Your task to perform on an android device: Search for a 3d printer on aliexpress Image 0: 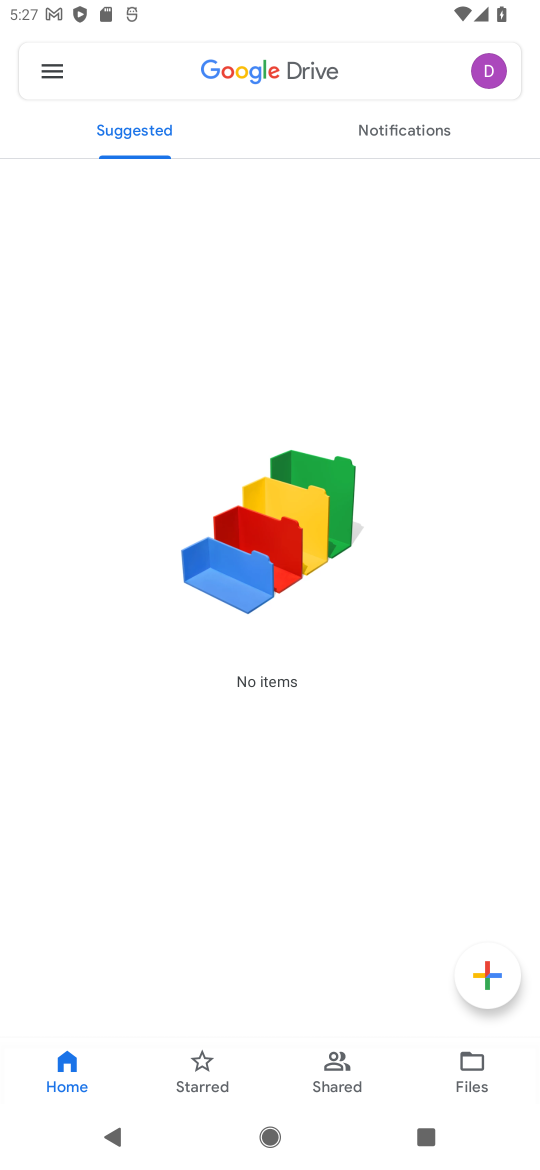
Step 0: press home button
Your task to perform on an android device: Search for a 3d printer on aliexpress Image 1: 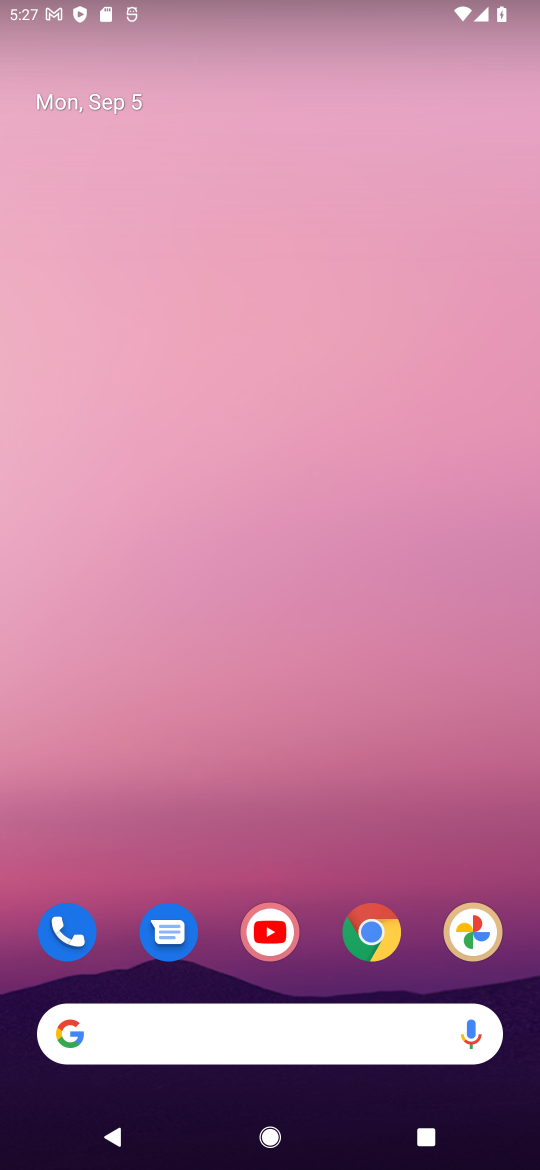
Step 1: drag from (311, 1003) to (375, 6)
Your task to perform on an android device: Search for a 3d printer on aliexpress Image 2: 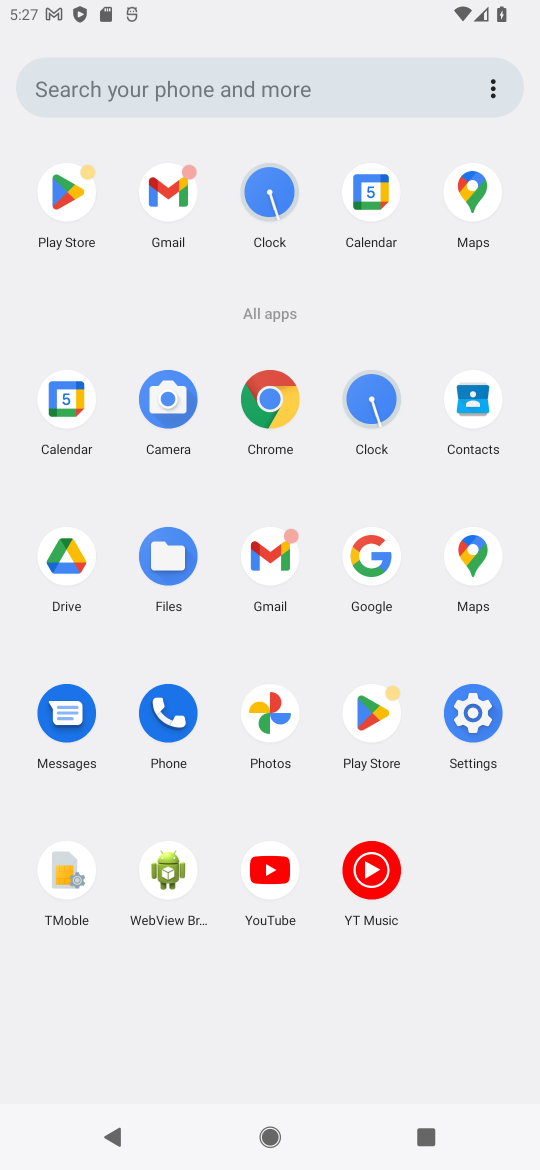
Step 2: click (375, 560)
Your task to perform on an android device: Search for a 3d printer on aliexpress Image 3: 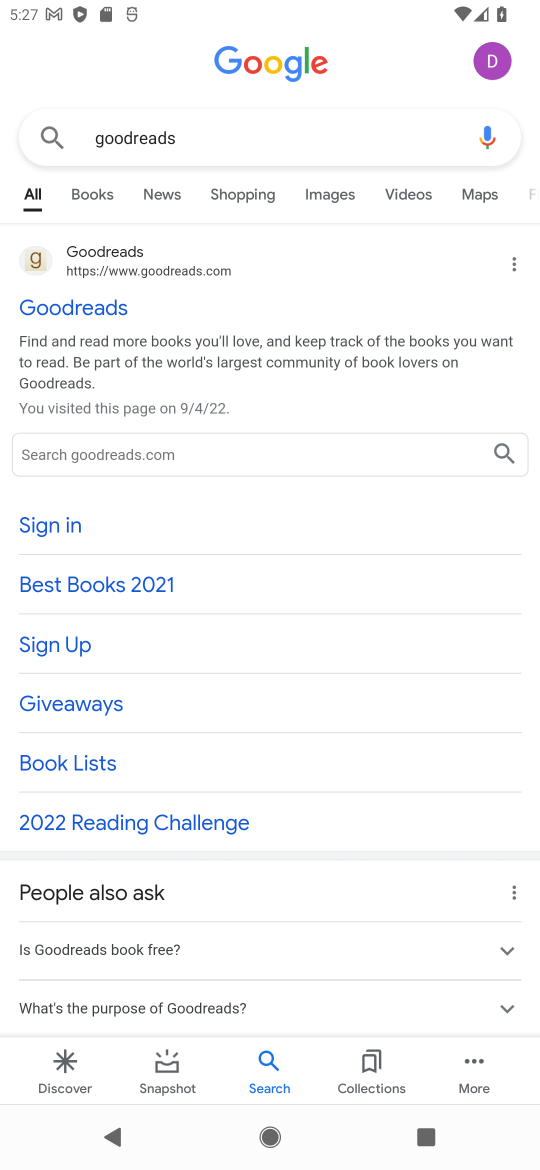
Step 3: click (271, 146)
Your task to perform on an android device: Search for a 3d printer on aliexpress Image 4: 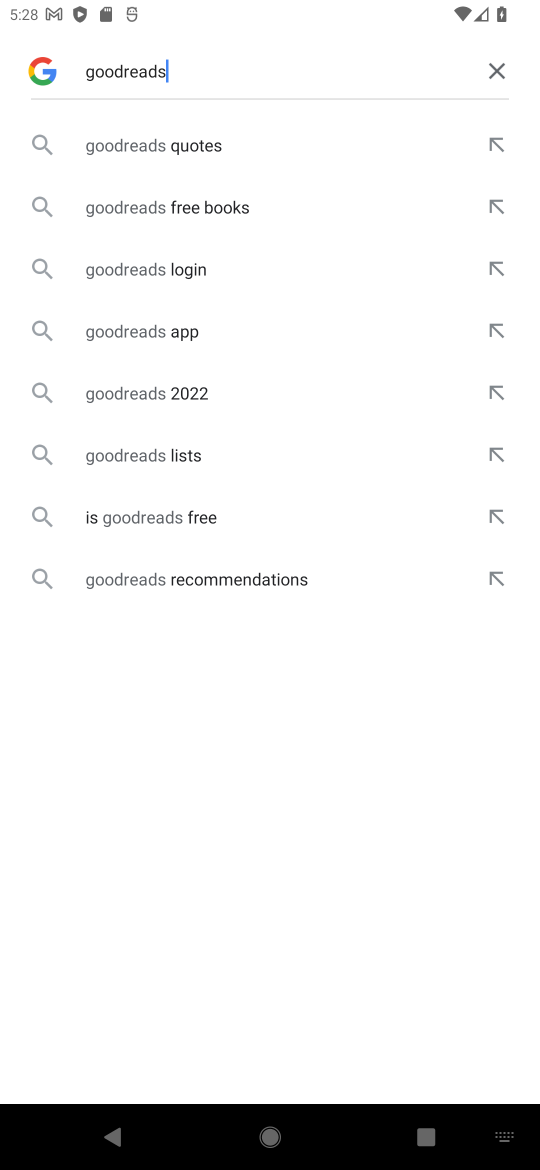
Step 4: click (491, 59)
Your task to perform on an android device: Search for a 3d printer on aliexpress Image 5: 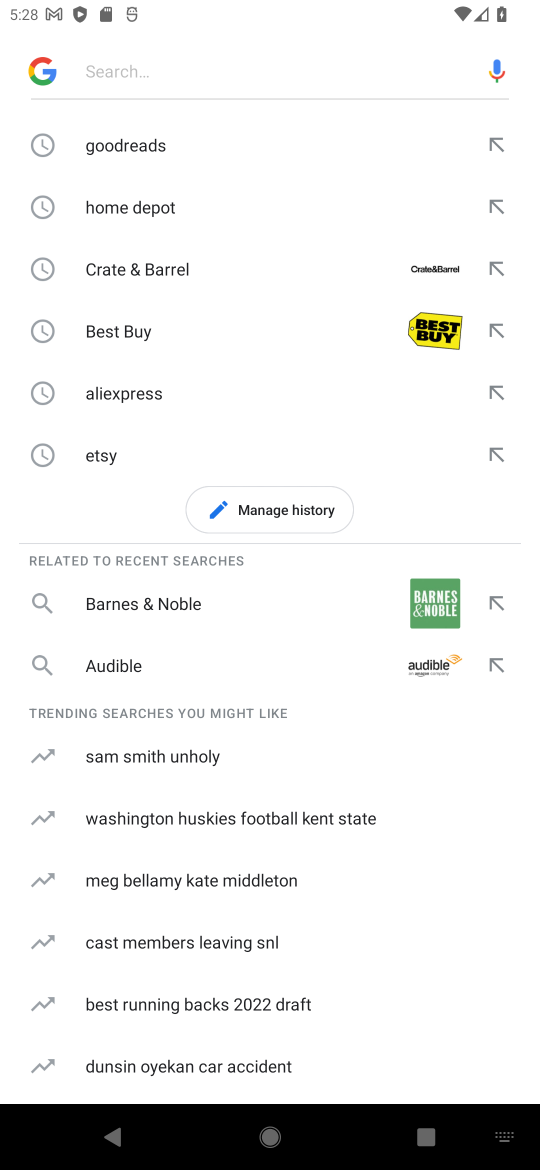
Step 5: type "aliexpress"
Your task to perform on an android device: Search for a 3d printer on aliexpress Image 6: 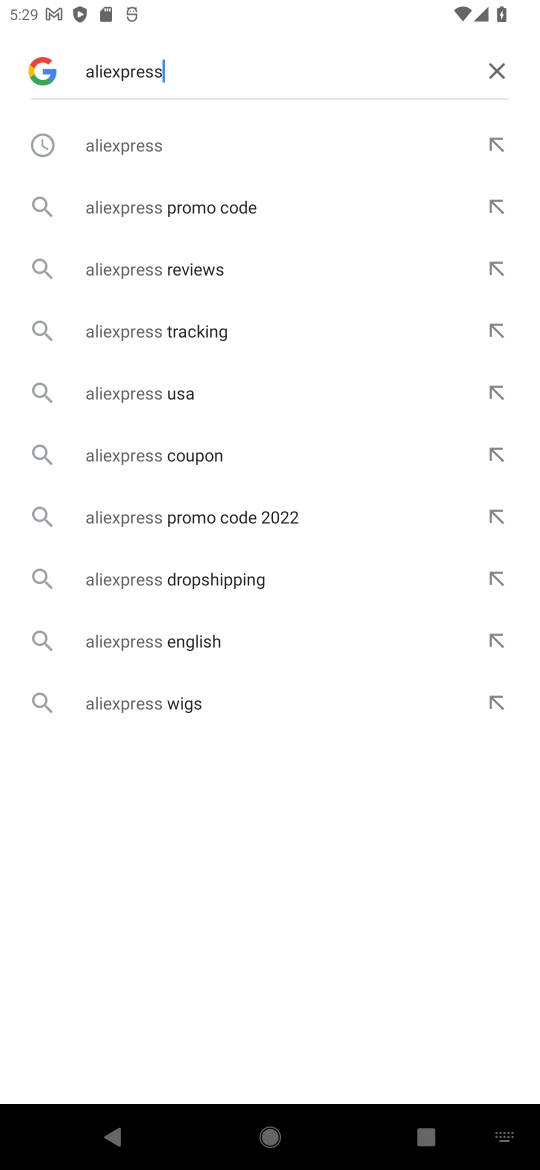
Step 6: click (129, 142)
Your task to perform on an android device: Search for a 3d printer on aliexpress Image 7: 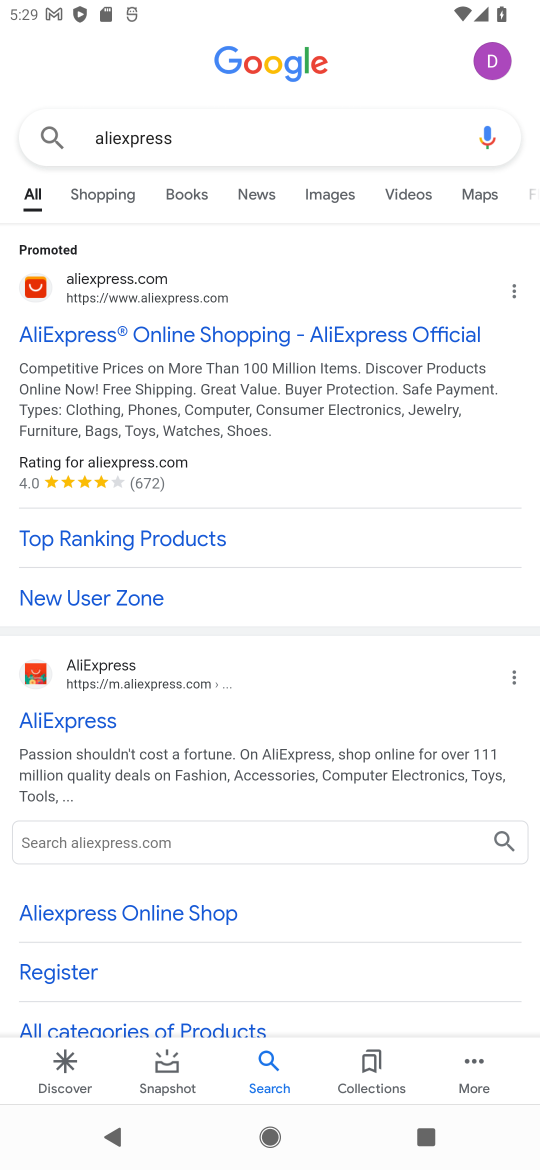
Step 7: click (87, 726)
Your task to perform on an android device: Search for a 3d printer on aliexpress Image 8: 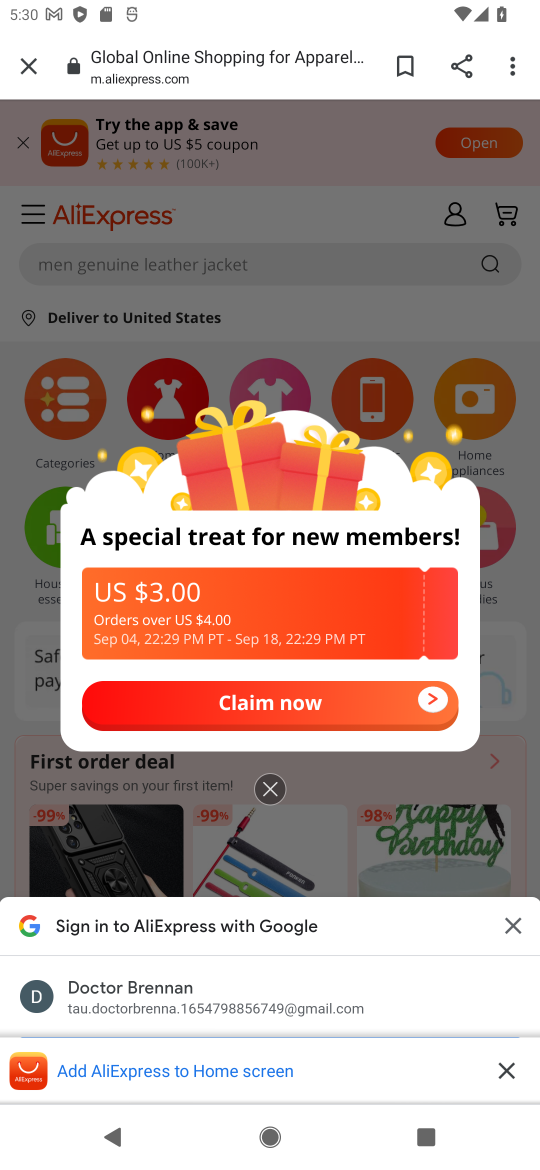
Step 8: click (266, 792)
Your task to perform on an android device: Search for a 3d printer on aliexpress Image 9: 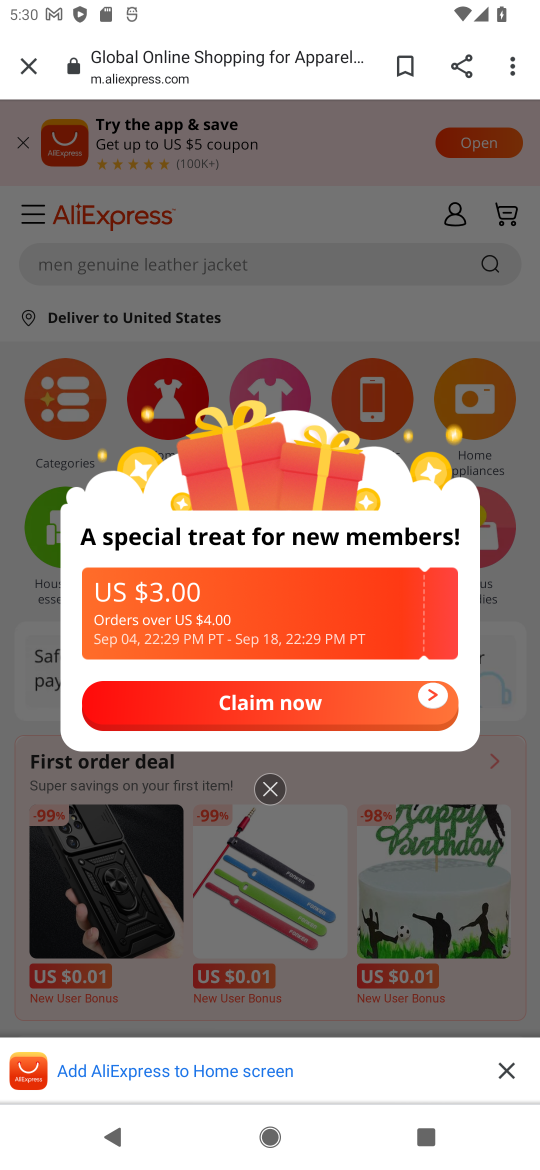
Step 9: click (508, 1066)
Your task to perform on an android device: Search for a 3d printer on aliexpress Image 10: 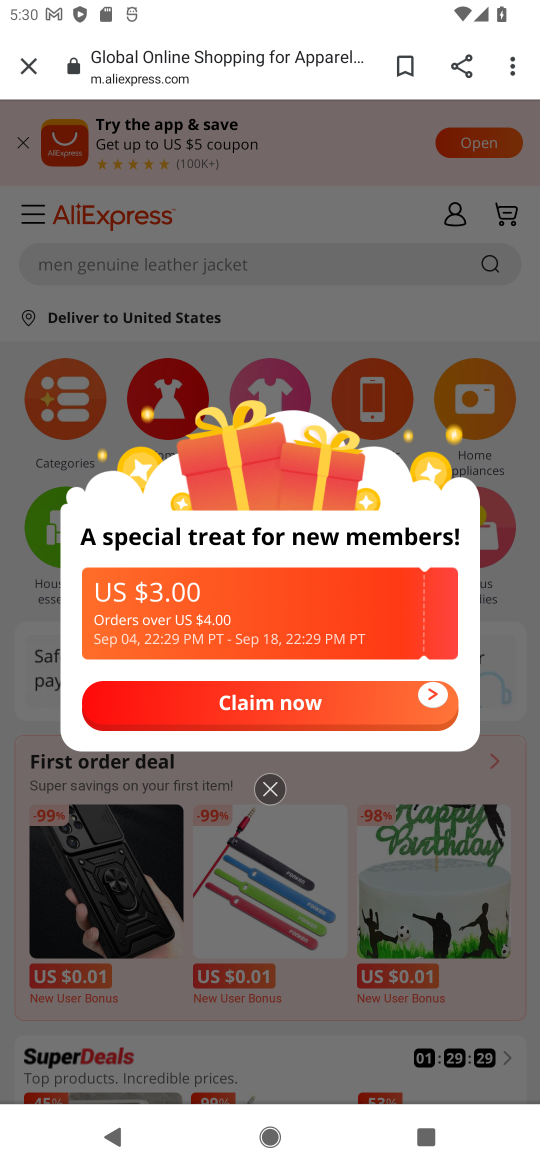
Step 10: click (280, 788)
Your task to perform on an android device: Search for a 3d printer on aliexpress Image 11: 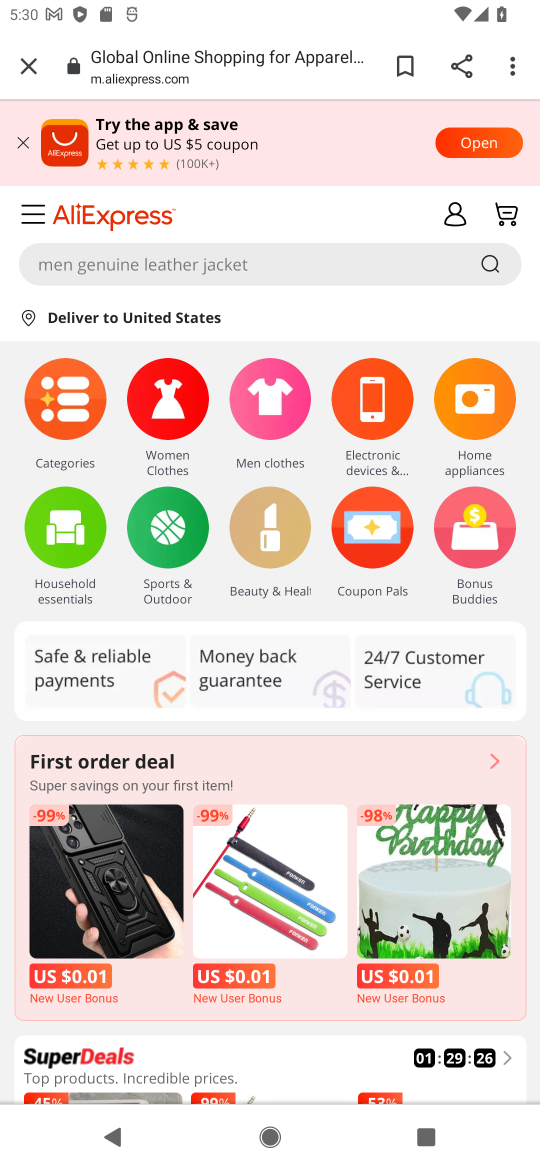
Step 11: click (434, 258)
Your task to perform on an android device: Search for a 3d printer on aliexpress Image 12: 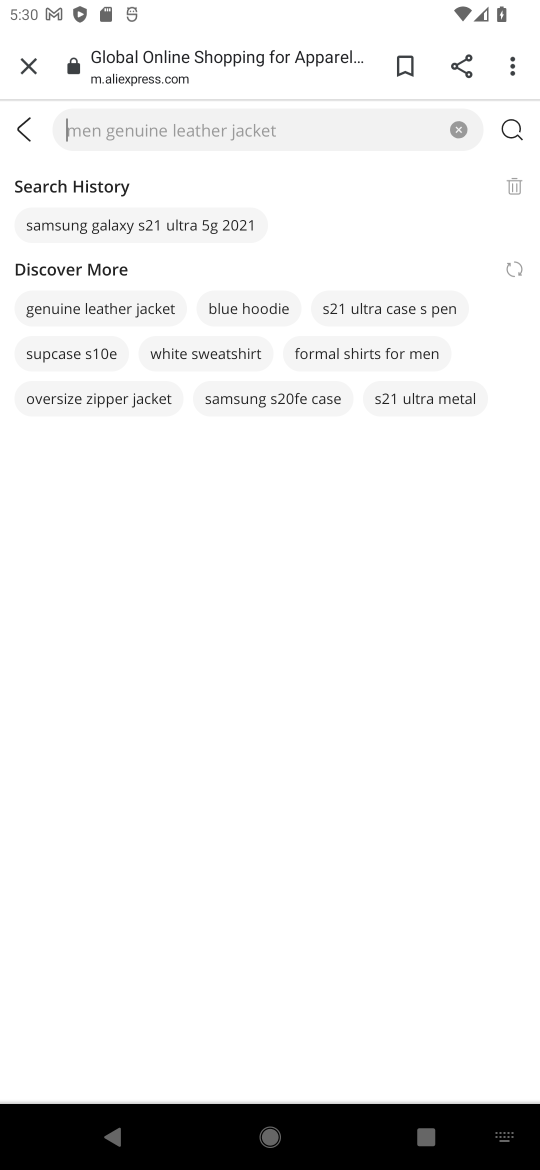
Step 12: type "3d printer"
Your task to perform on an android device: Search for a 3d printer on aliexpress Image 13: 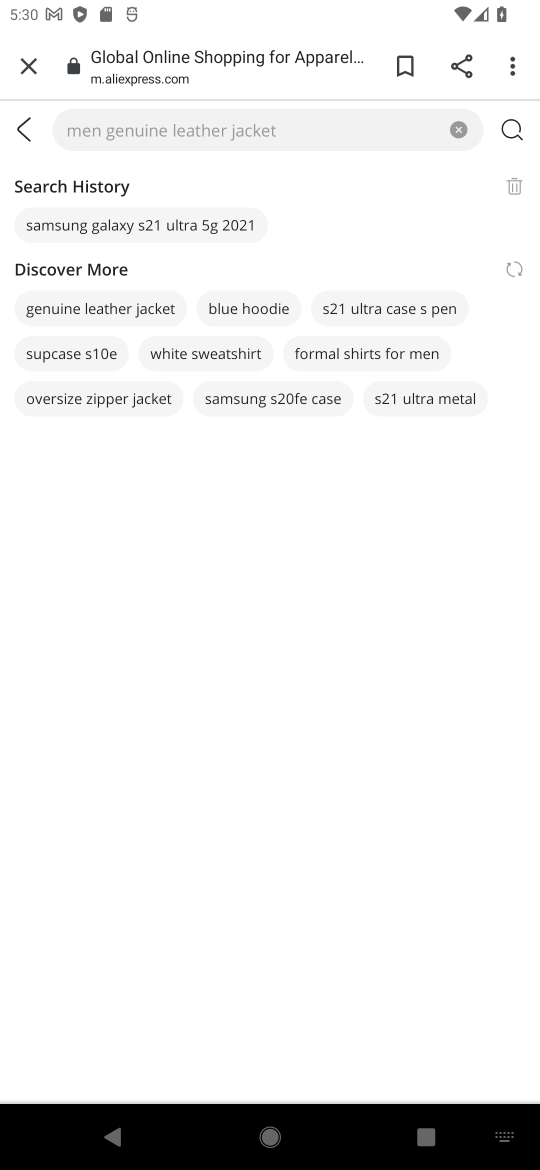
Step 13: type ""
Your task to perform on an android device: Search for a 3d printer on aliexpress Image 14: 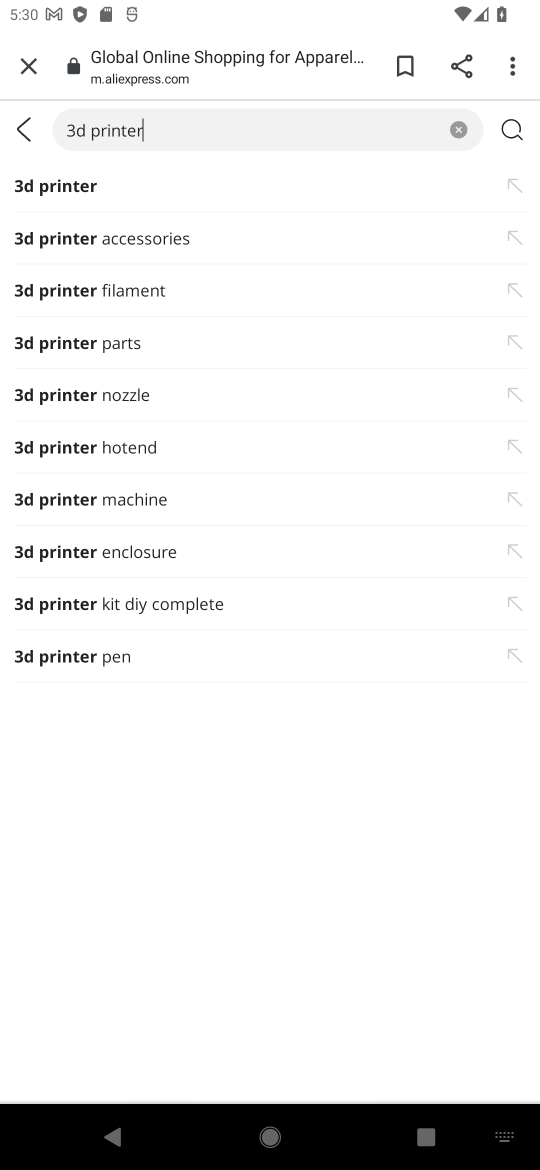
Step 14: click (53, 186)
Your task to perform on an android device: Search for a 3d printer on aliexpress Image 15: 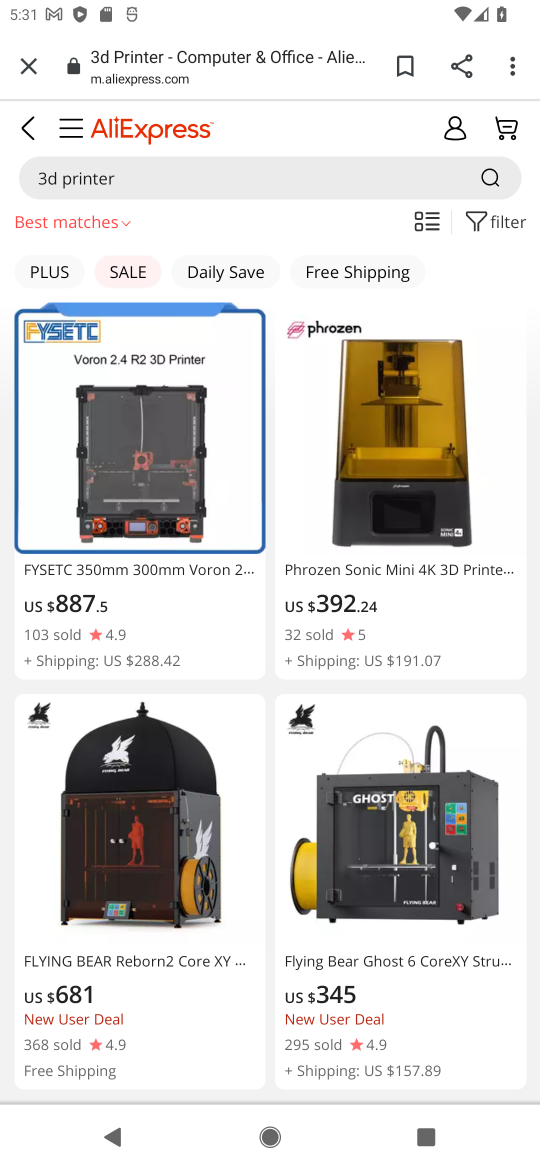
Step 15: task complete